Your task to perform on an android device: Open accessibility settings Image 0: 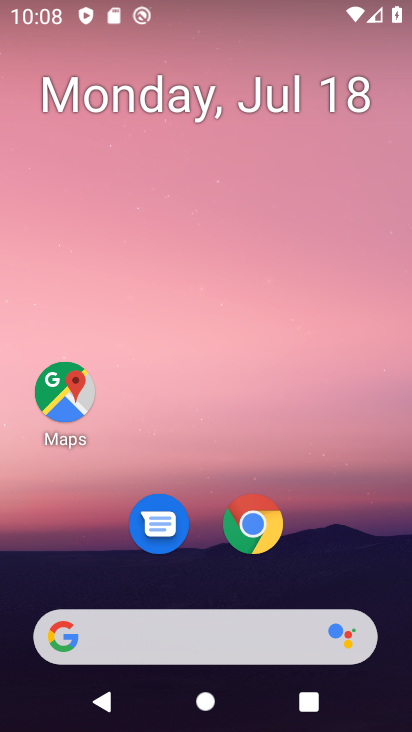
Step 0: drag from (339, 557) to (377, 25)
Your task to perform on an android device: Open accessibility settings Image 1: 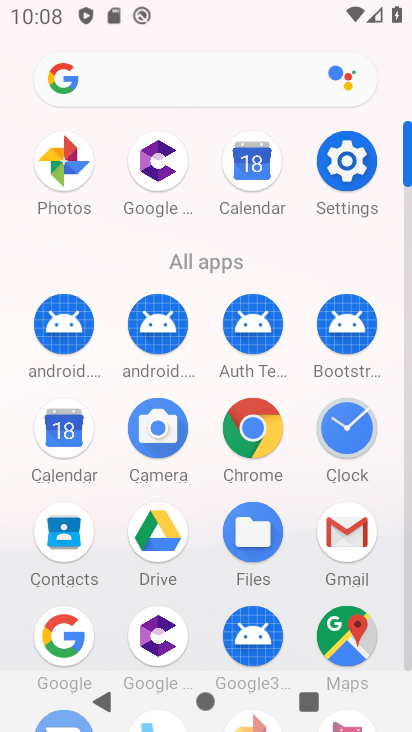
Step 1: click (345, 166)
Your task to perform on an android device: Open accessibility settings Image 2: 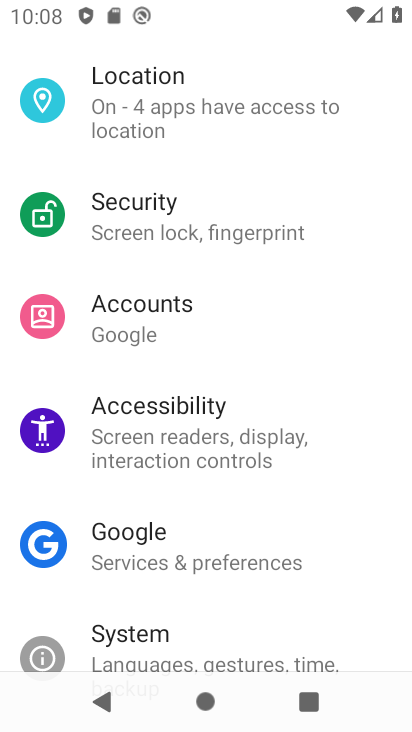
Step 2: click (244, 443)
Your task to perform on an android device: Open accessibility settings Image 3: 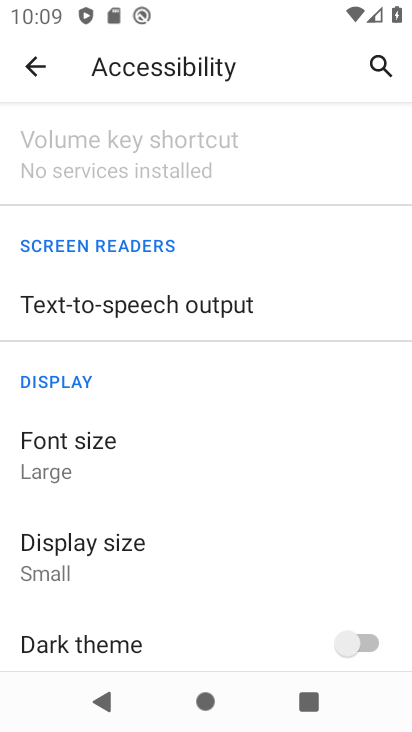
Step 3: task complete